Your task to perform on an android device: Check the weather Image 0: 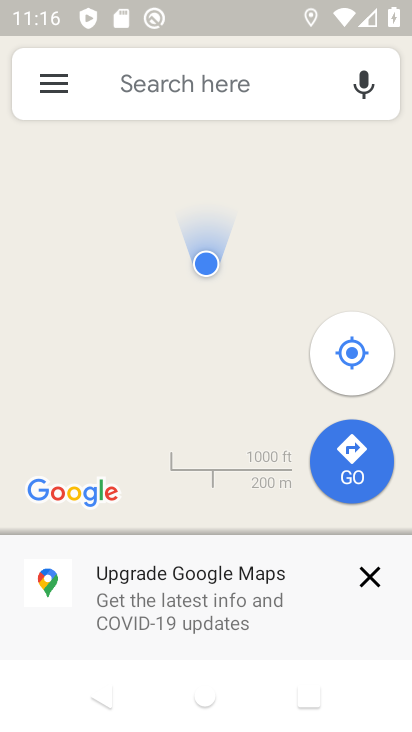
Step 0: press home button
Your task to perform on an android device: Check the weather Image 1: 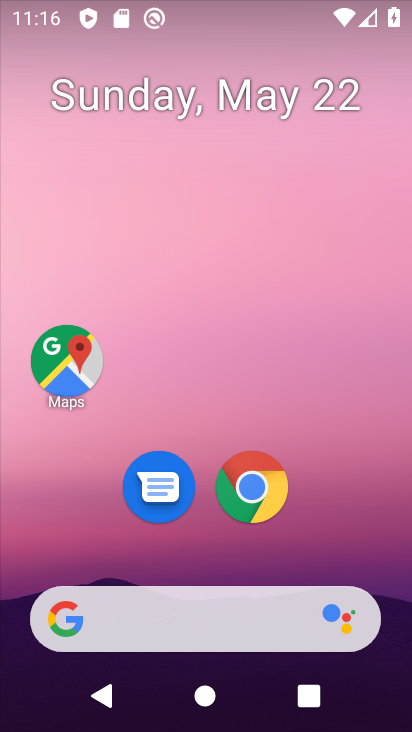
Step 1: drag from (348, 552) to (376, 191)
Your task to perform on an android device: Check the weather Image 2: 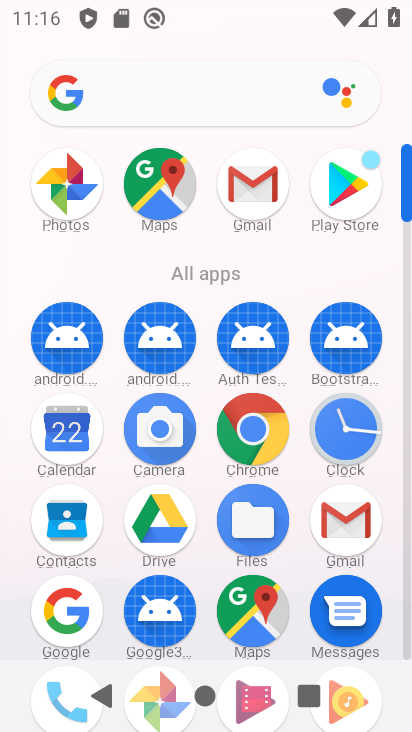
Step 2: click (256, 455)
Your task to perform on an android device: Check the weather Image 3: 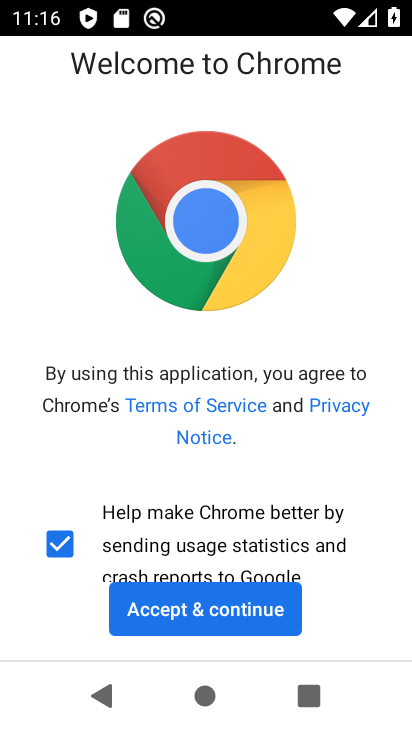
Step 3: click (247, 619)
Your task to perform on an android device: Check the weather Image 4: 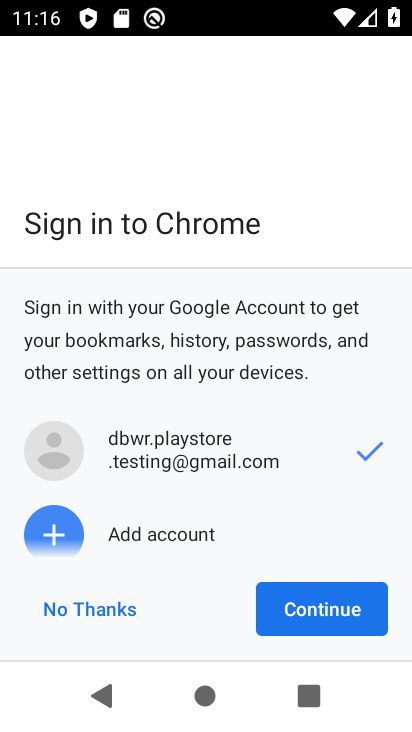
Step 4: click (329, 607)
Your task to perform on an android device: Check the weather Image 5: 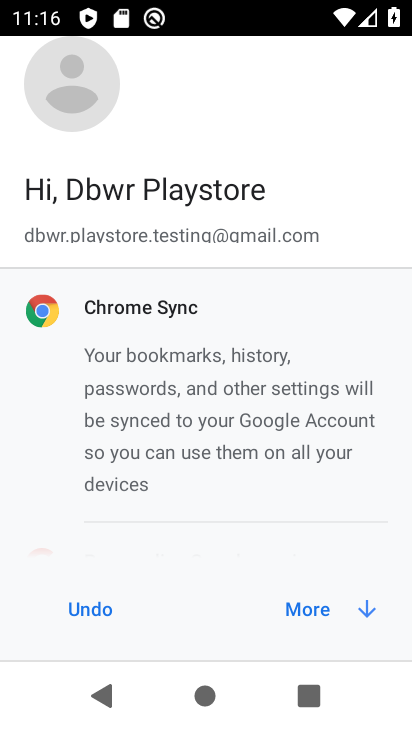
Step 5: click (329, 607)
Your task to perform on an android device: Check the weather Image 6: 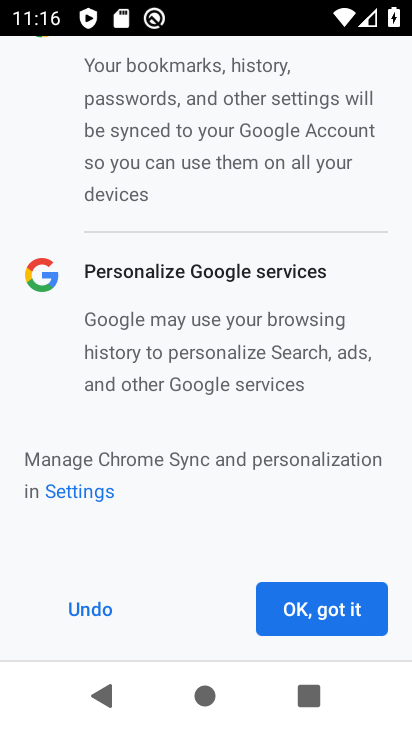
Step 6: click (328, 608)
Your task to perform on an android device: Check the weather Image 7: 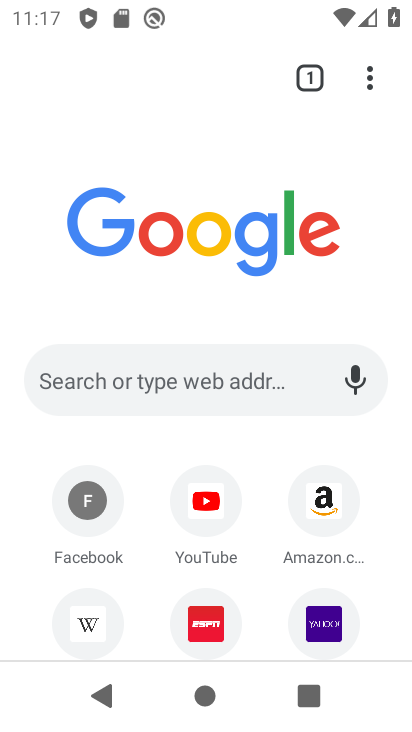
Step 7: click (259, 375)
Your task to perform on an android device: Check the weather Image 8: 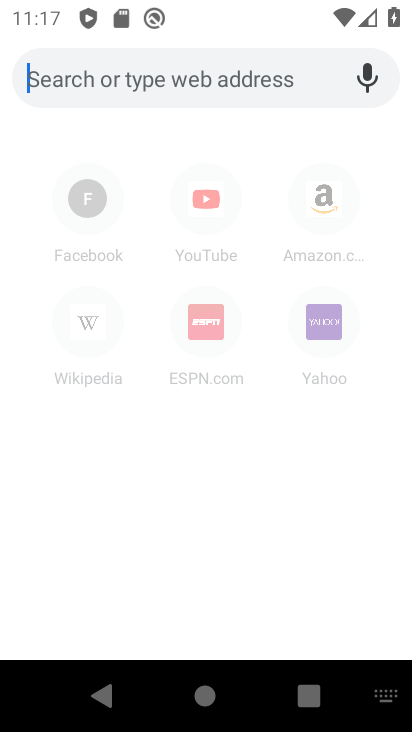
Step 8: type "check the weather"
Your task to perform on an android device: Check the weather Image 9: 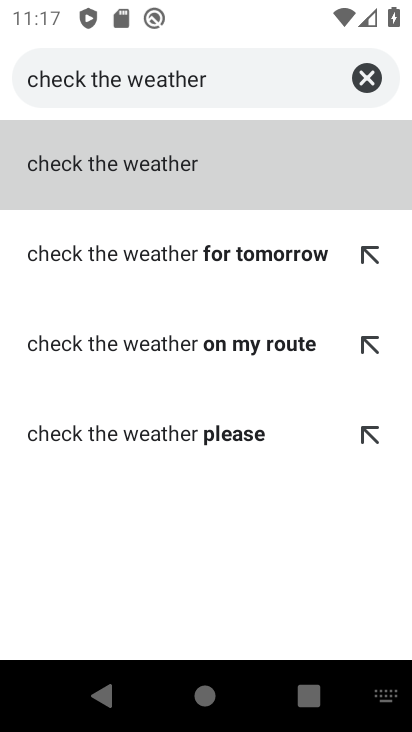
Step 9: click (166, 143)
Your task to perform on an android device: Check the weather Image 10: 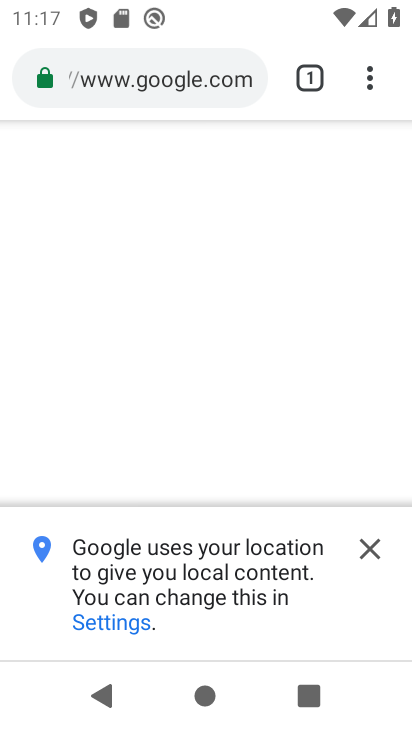
Step 10: click (372, 553)
Your task to perform on an android device: Check the weather Image 11: 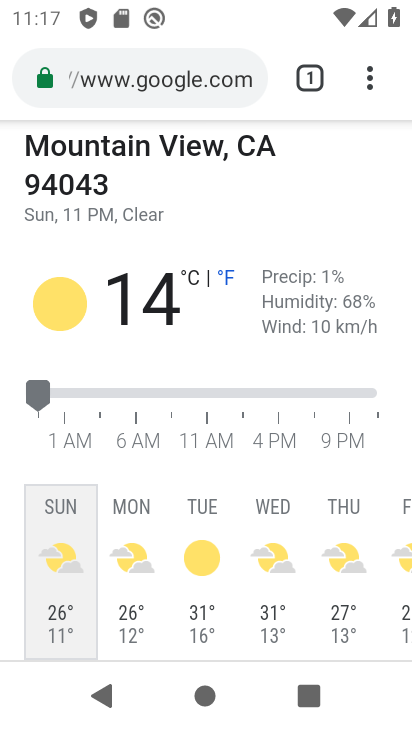
Step 11: task complete